Your task to perform on an android device: open app "ColorNote Notepad Notes" (install if not already installed) Image 0: 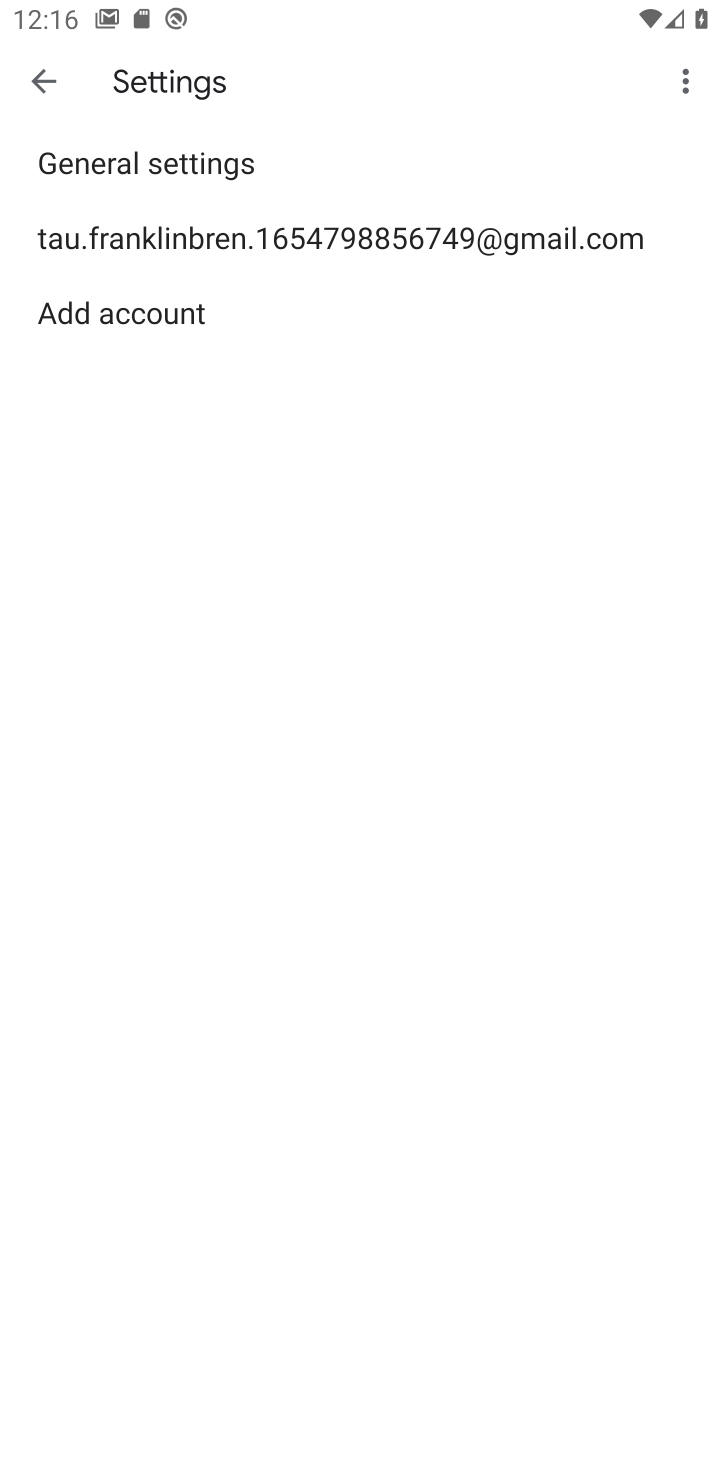
Step 0: press home button
Your task to perform on an android device: open app "ColorNote Notepad Notes" (install if not already installed) Image 1: 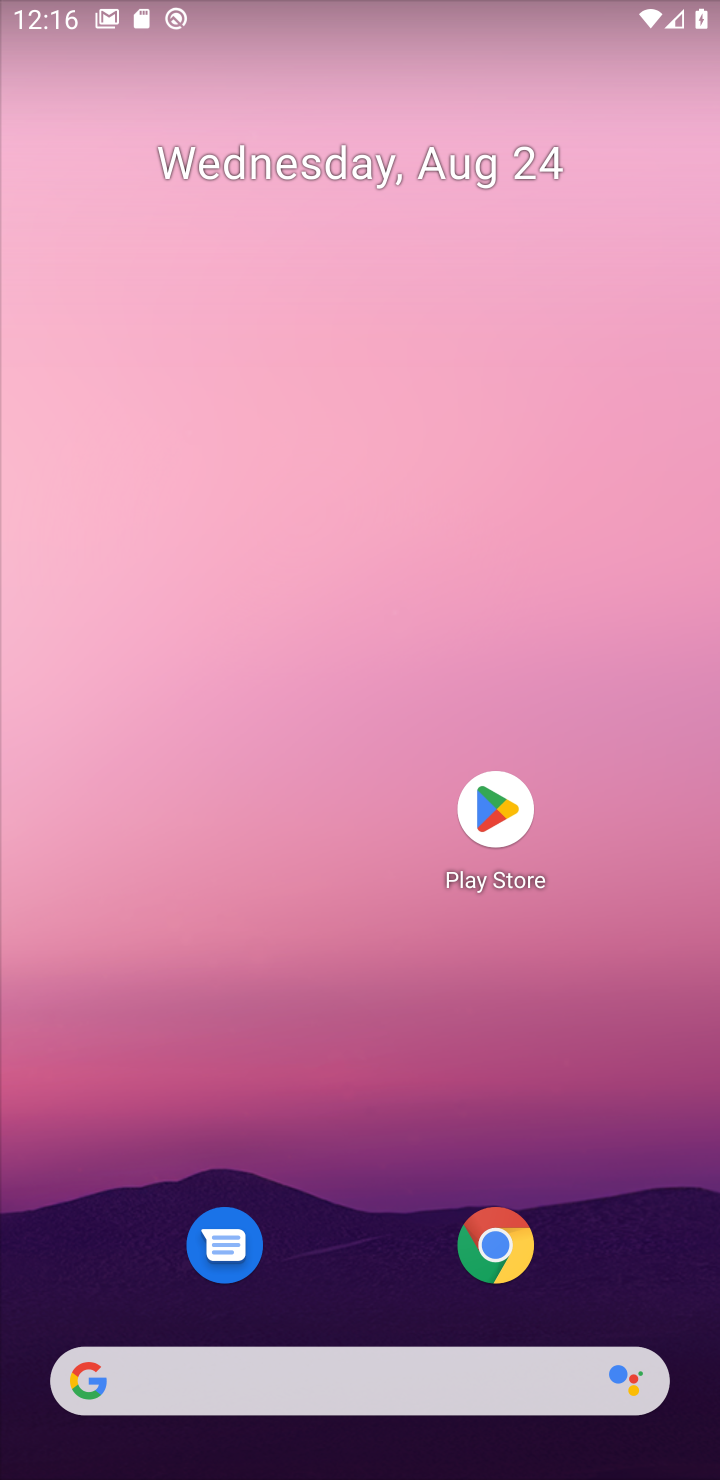
Step 1: click (491, 811)
Your task to perform on an android device: open app "ColorNote Notepad Notes" (install if not already installed) Image 2: 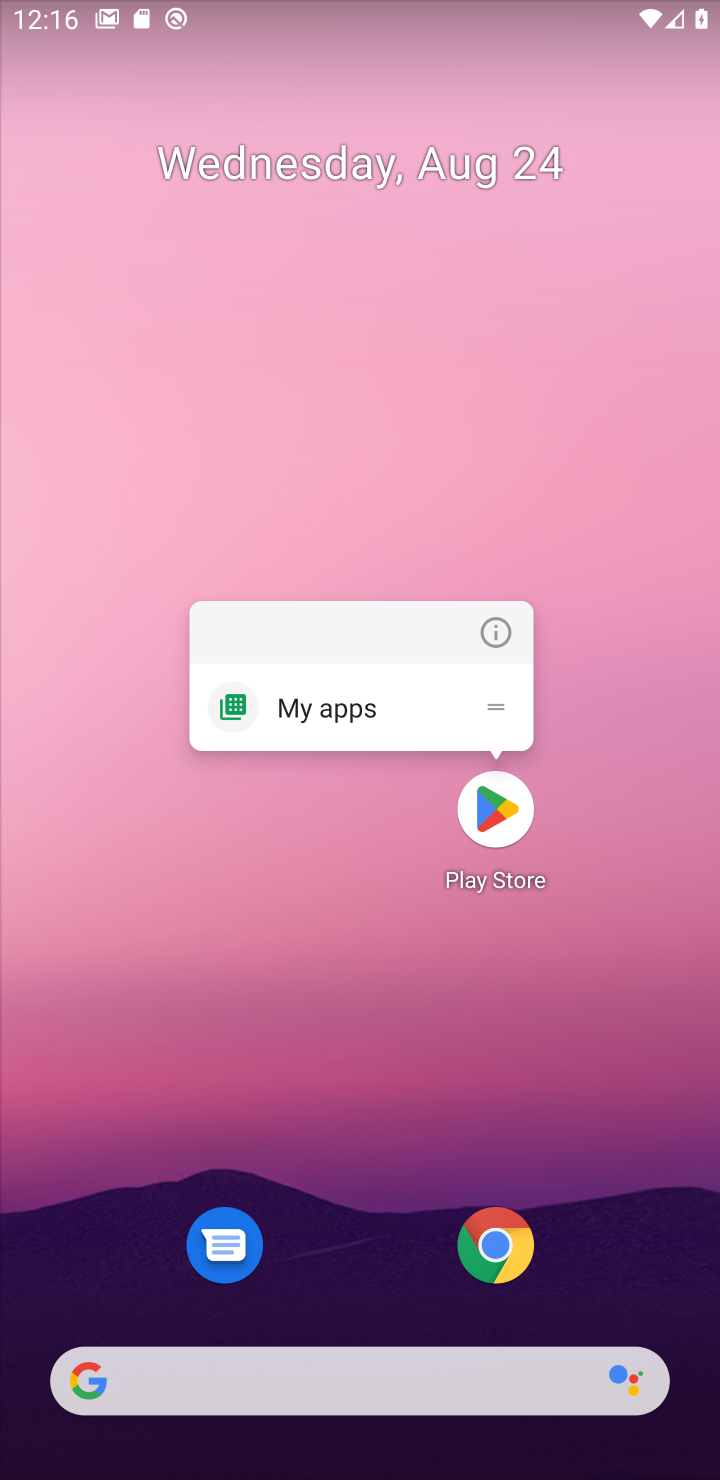
Step 2: click (491, 819)
Your task to perform on an android device: open app "ColorNote Notepad Notes" (install if not already installed) Image 3: 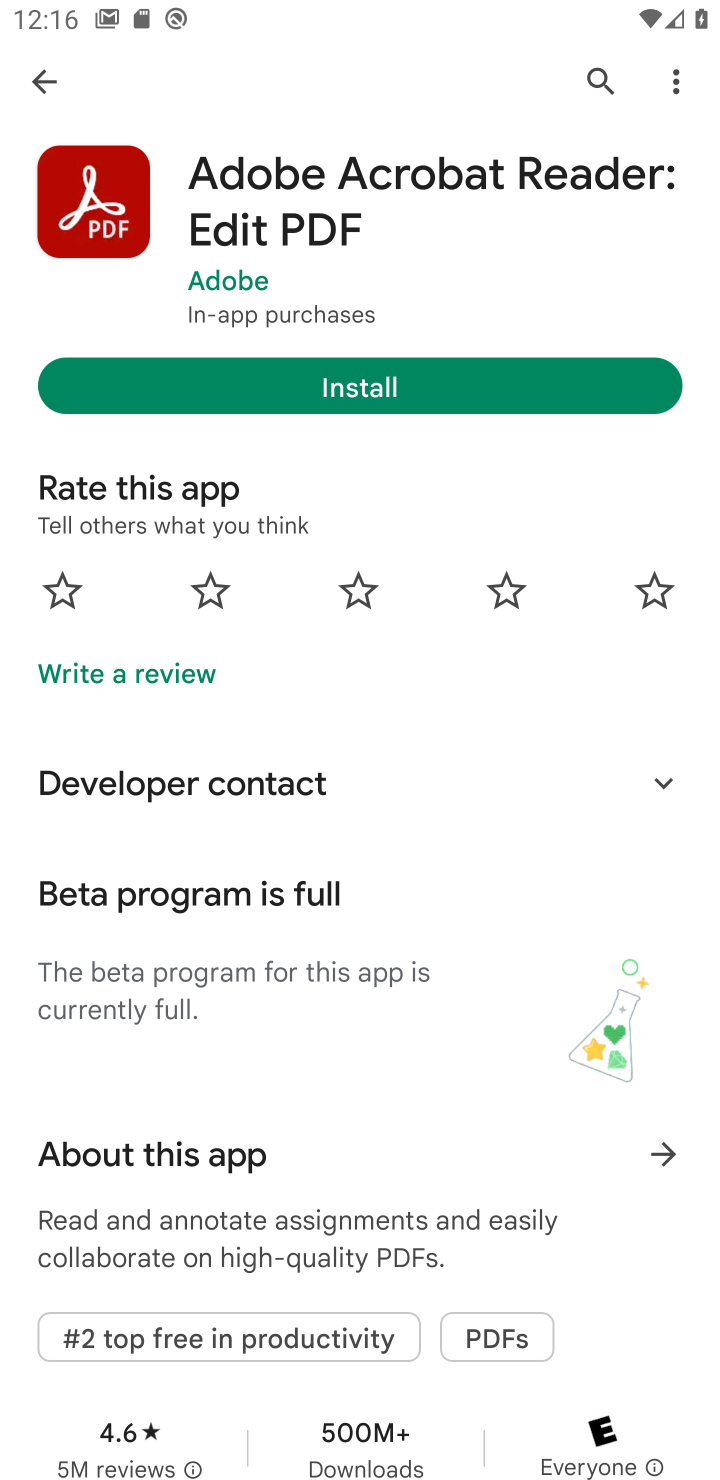
Step 3: click (600, 69)
Your task to perform on an android device: open app "ColorNote Notepad Notes" (install if not already installed) Image 4: 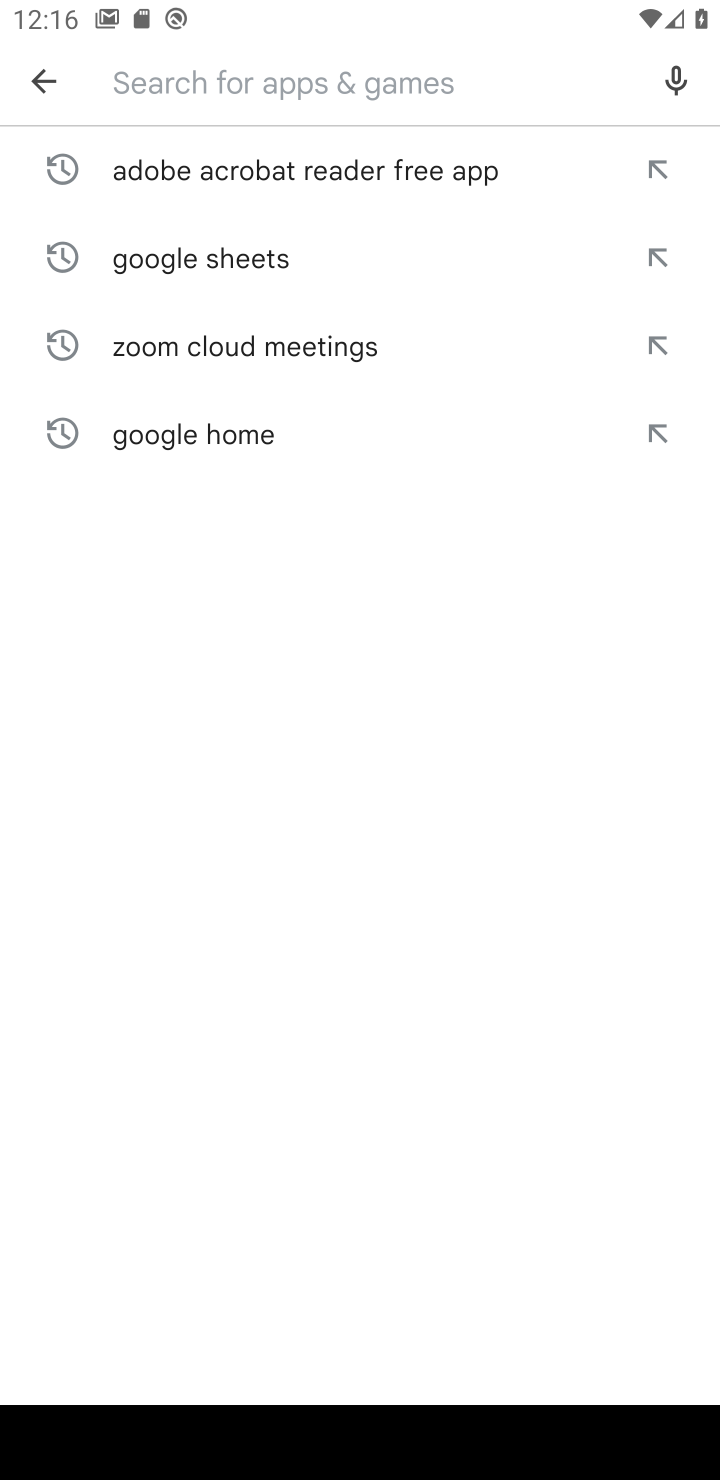
Step 4: type "ColorNote Notepad Notes"
Your task to perform on an android device: open app "ColorNote Notepad Notes" (install if not already installed) Image 5: 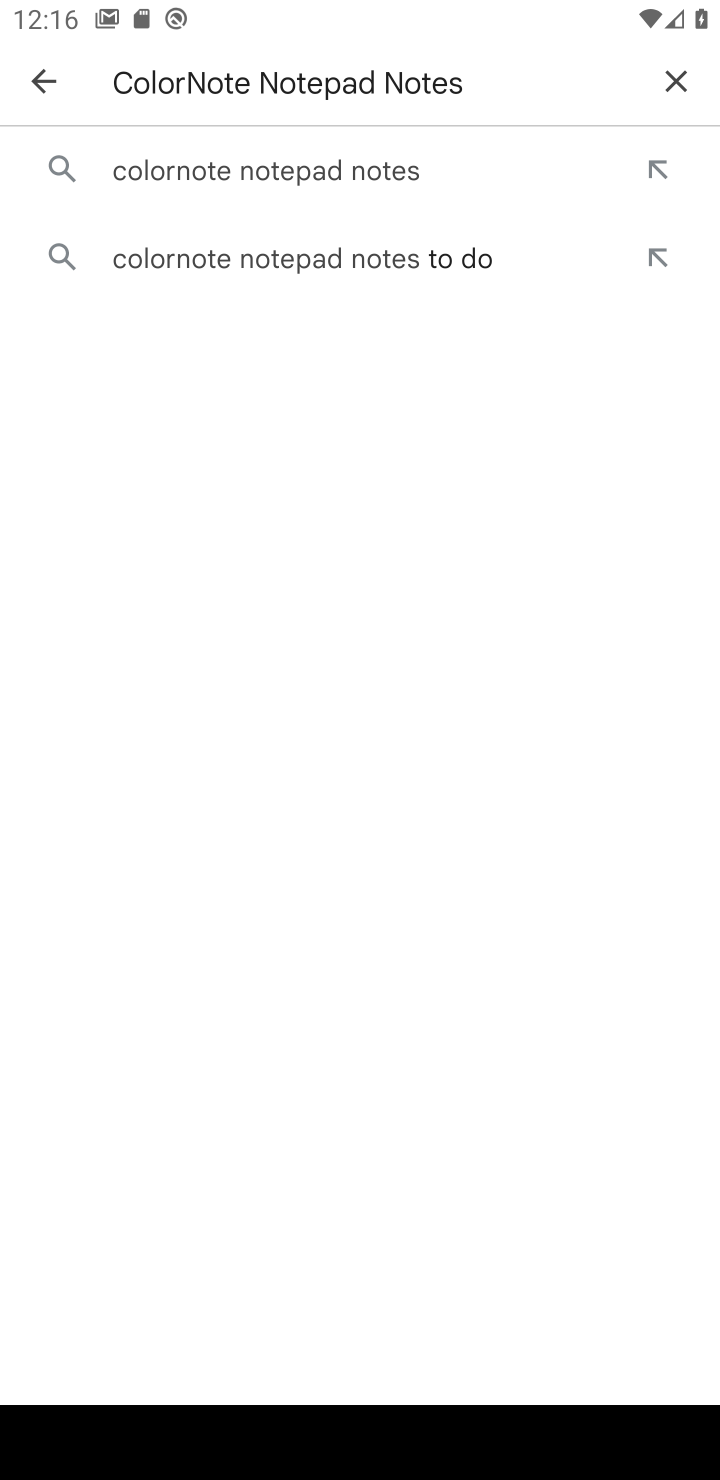
Step 5: click (215, 170)
Your task to perform on an android device: open app "ColorNote Notepad Notes" (install if not already installed) Image 6: 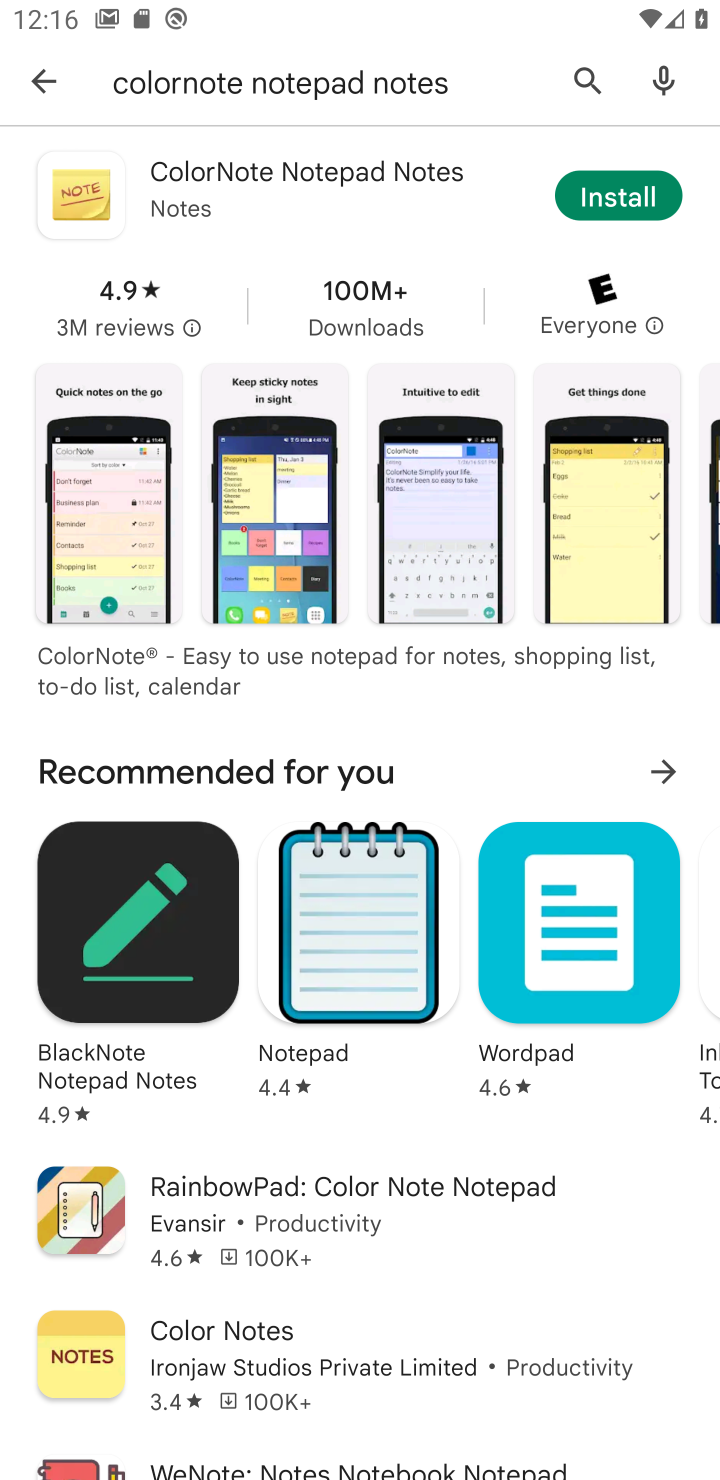
Step 6: click (611, 189)
Your task to perform on an android device: open app "ColorNote Notepad Notes" (install if not already installed) Image 7: 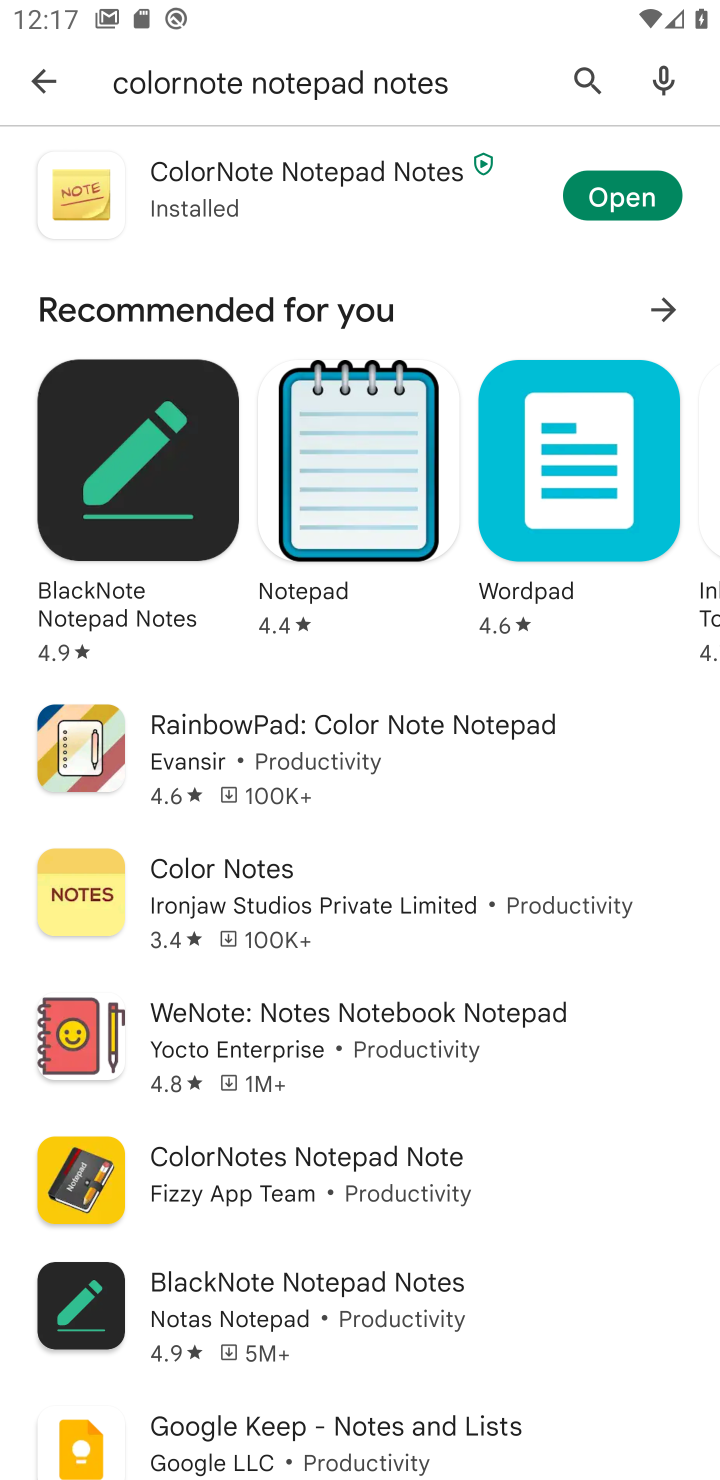
Step 7: click (611, 195)
Your task to perform on an android device: open app "ColorNote Notepad Notes" (install if not already installed) Image 8: 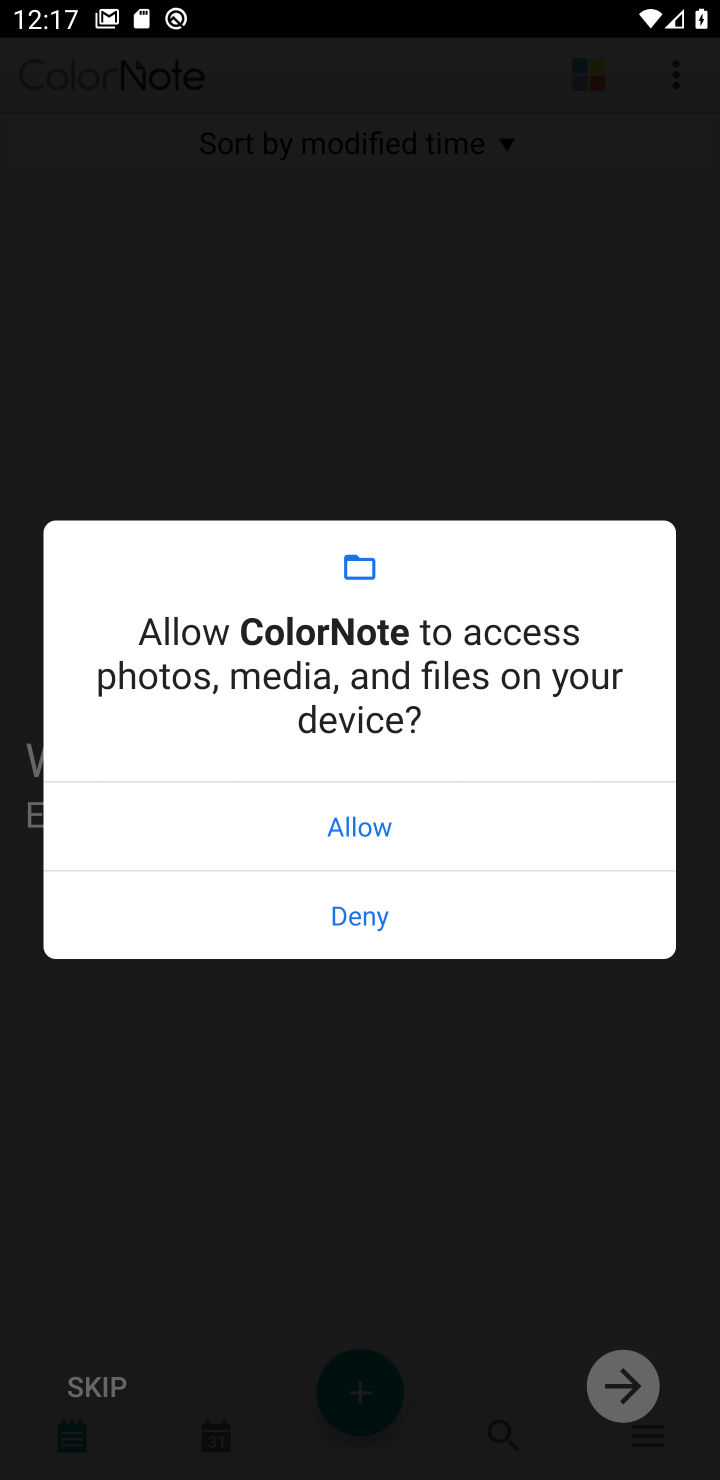
Step 8: task complete